Your task to perform on an android device: turn notification dots on Image 0: 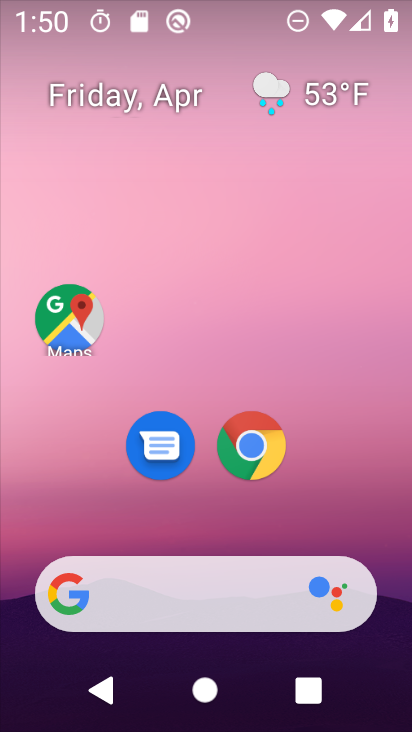
Step 0: drag from (373, 513) to (359, 95)
Your task to perform on an android device: turn notification dots on Image 1: 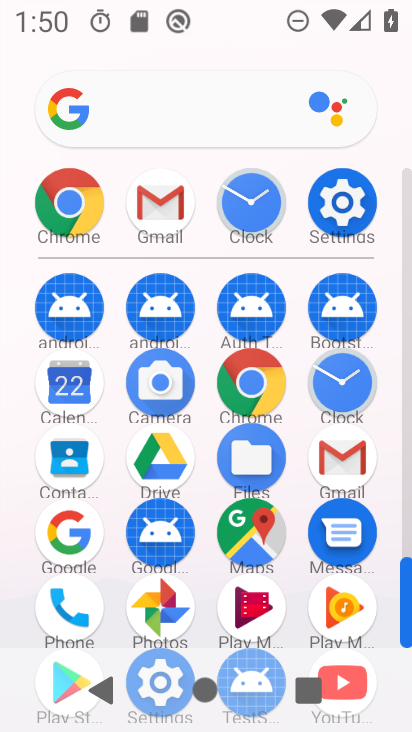
Step 1: click (325, 199)
Your task to perform on an android device: turn notification dots on Image 2: 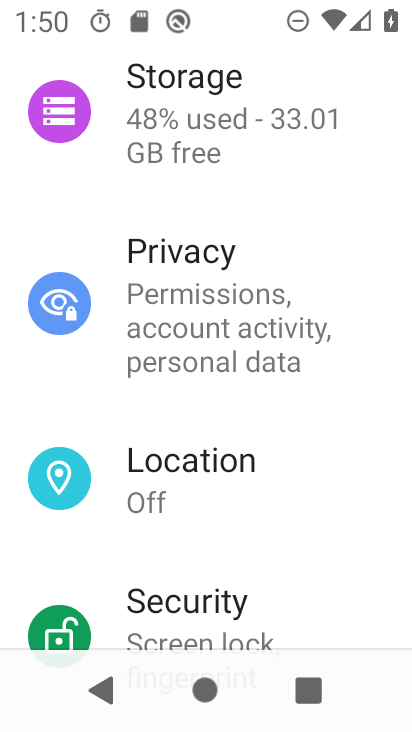
Step 2: drag from (372, 289) to (372, 425)
Your task to perform on an android device: turn notification dots on Image 3: 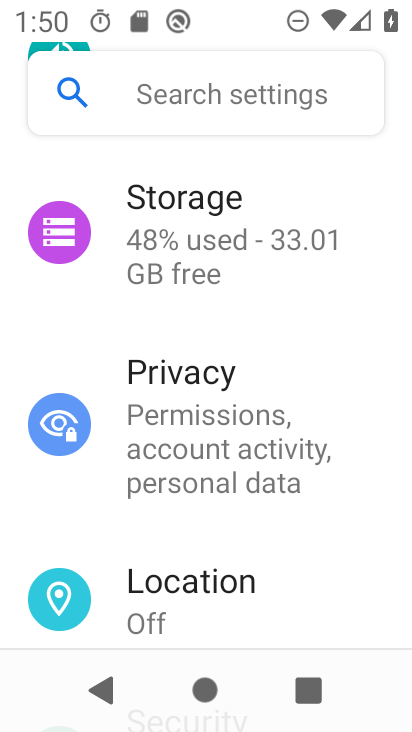
Step 3: drag from (366, 275) to (366, 439)
Your task to perform on an android device: turn notification dots on Image 4: 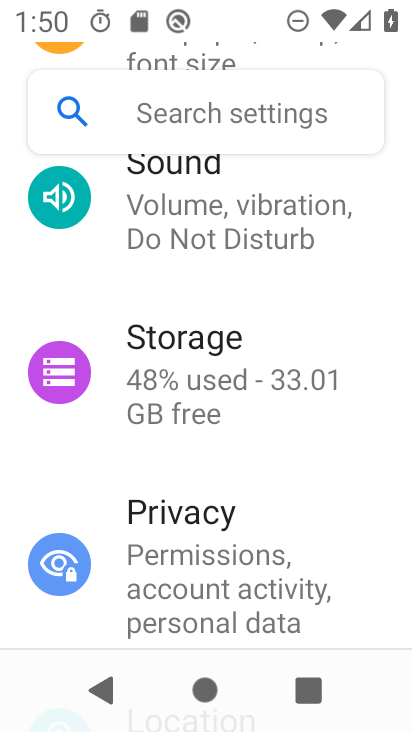
Step 4: drag from (374, 278) to (358, 426)
Your task to perform on an android device: turn notification dots on Image 5: 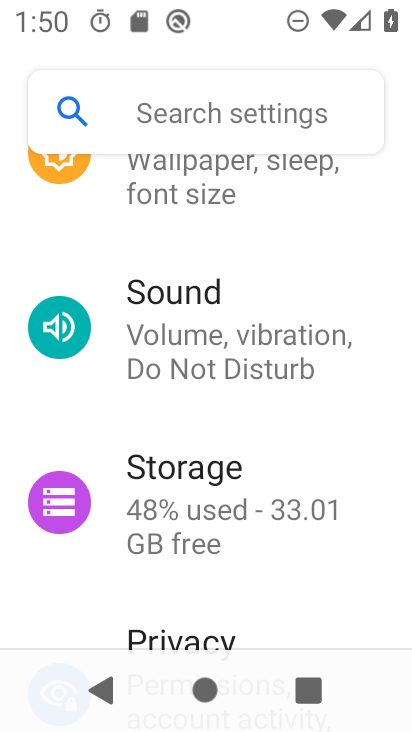
Step 5: drag from (373, 251) to (374, 416)
Your task to perform on an android device: turn notification dots on Image 6: 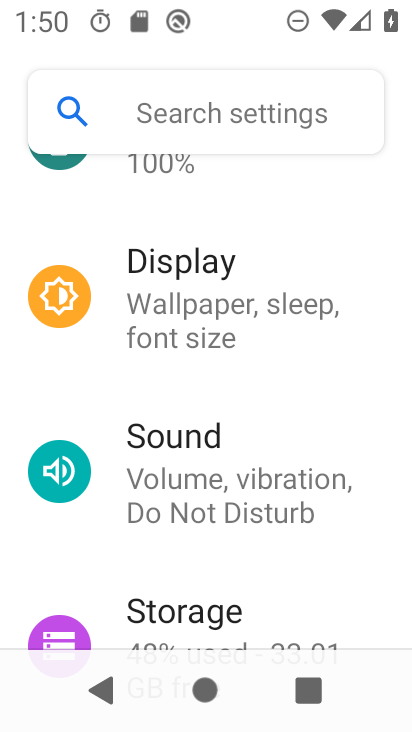
Step 6: drag from (374, 243) to (366, 409)
Your task to perform on an android device: turn notification dots on Image 7: 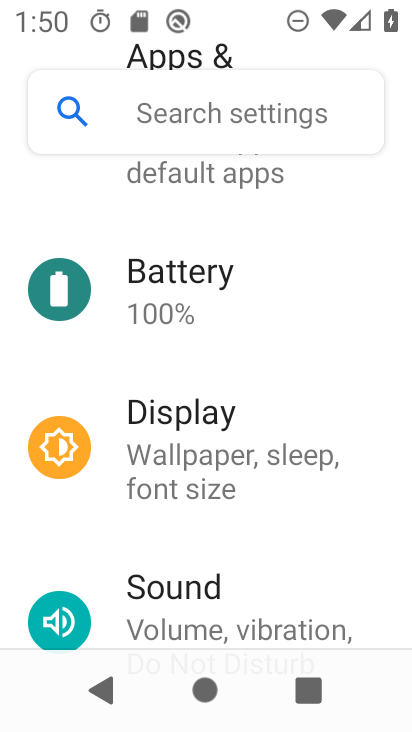
Step 7: drag from (365, 216) to (363, 386)
Your task to perform on an android device: turn notification dots on Image 8: 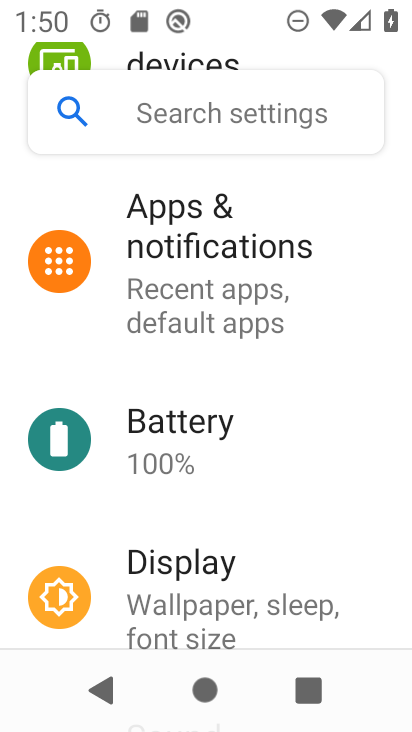
Step 8: drag from (359, 202) to (344, 445)
Your task to perform on an android device: turn notification dots on Image 9: 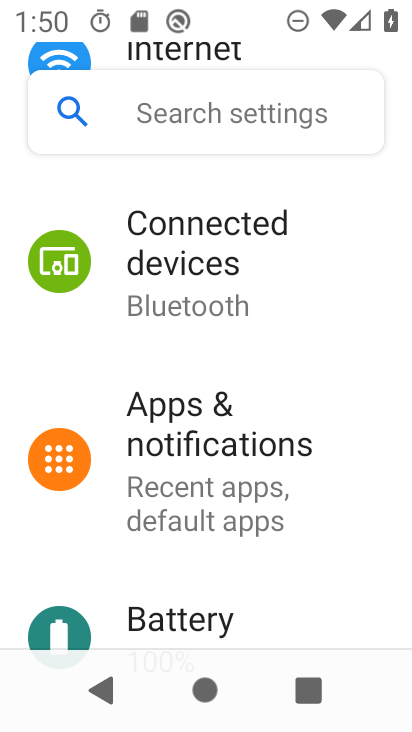
Step 9: click (299, 460)
Your task to perform on an android device: turn notification dots on Image 10: 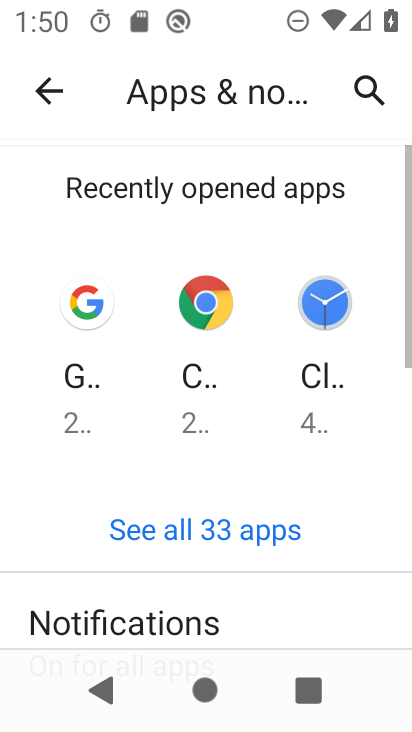
Step 10: drag from (298, 580) to (324, 333)
Your task to perform on an android device: turn notification dots on Image 11: 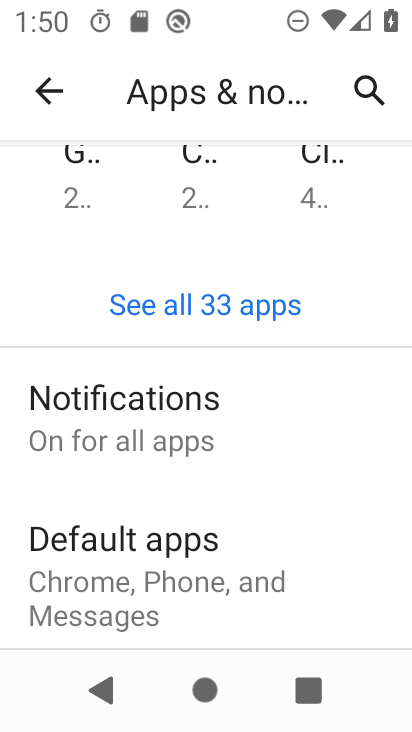
Step 11: drag from (324, 528) to (335, 418)
Your task to perform on an android device: turn notification dots on Image 12: 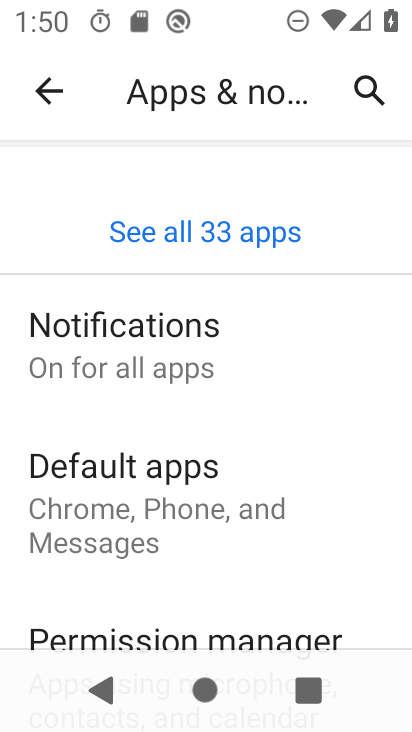
Step 12: click (147, 347)
Your task to perform on an android device: turn notification dots on Image 13: 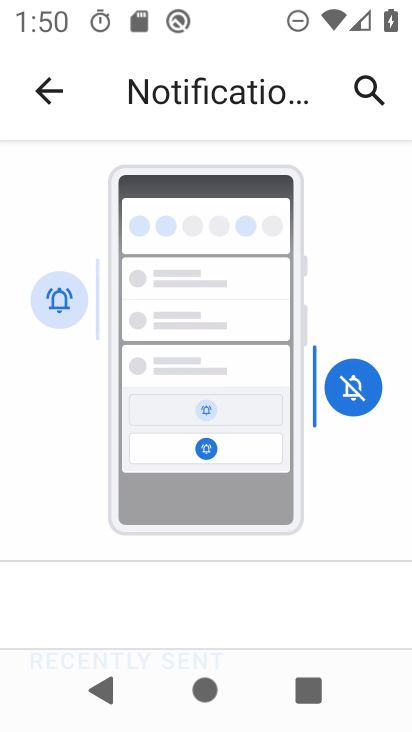
Step 13: drag from (327, 575) to (334, 394)
Your task to perform on an android device: turn notification dots on Image 14: 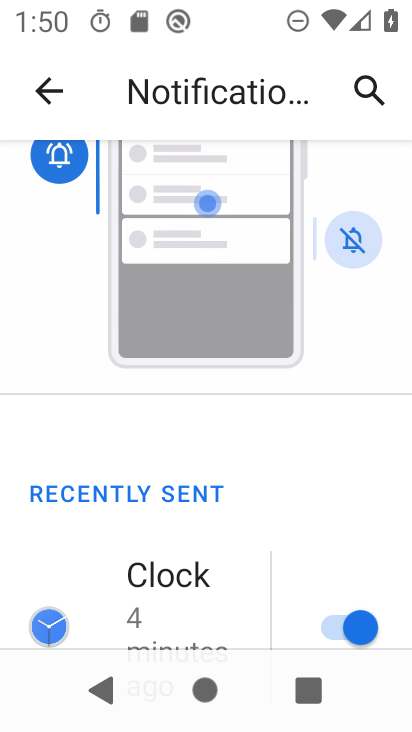
Step 14: drag from (242, 590) to (254, 407)
Your task to perform on an android device: turn notification dots on Image 15: 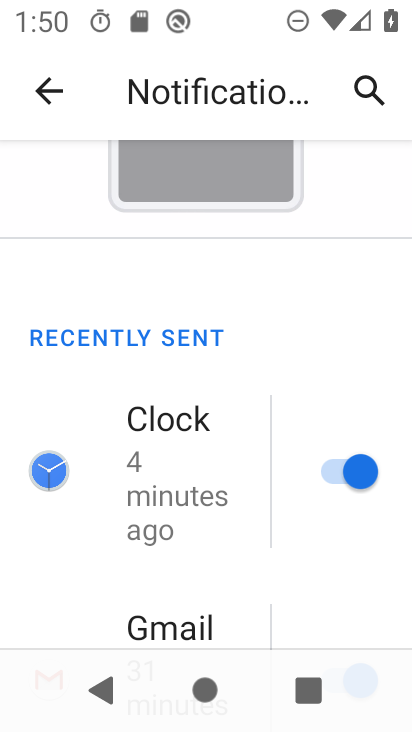
Step 15: drag from (238, 595) to (241, 404)
Your task to perform on an android device: turn notification dots on Image 16: 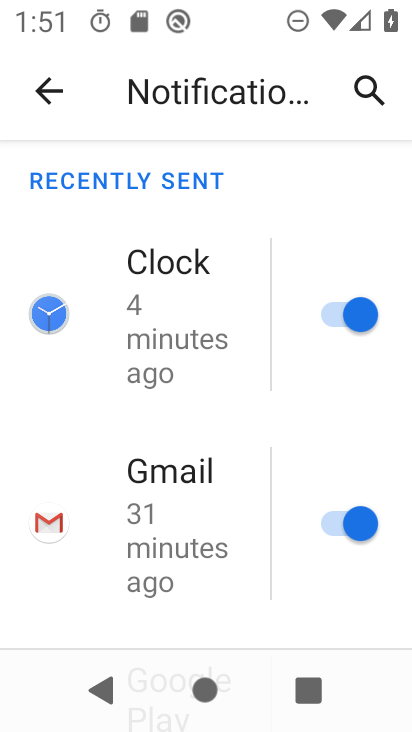
Step 16: drag from (244, 586) to (252, 340)
Your task to perform on an android device: turn notification dots on Image 17: 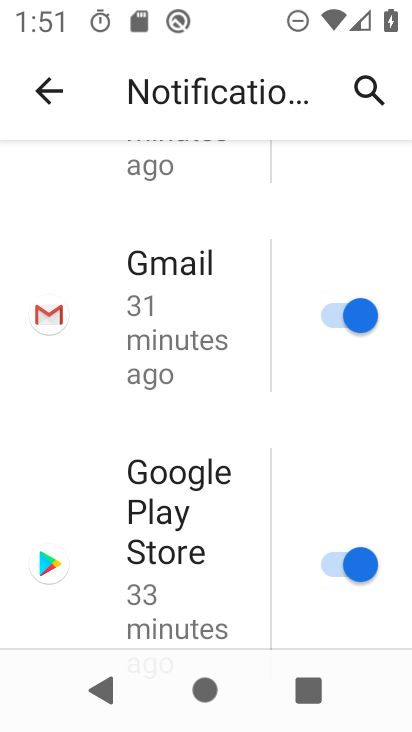
Step 17: drag from (247, 575) to (236, 308)
Your task to perform on an android device: turn notification dots on Image 18: 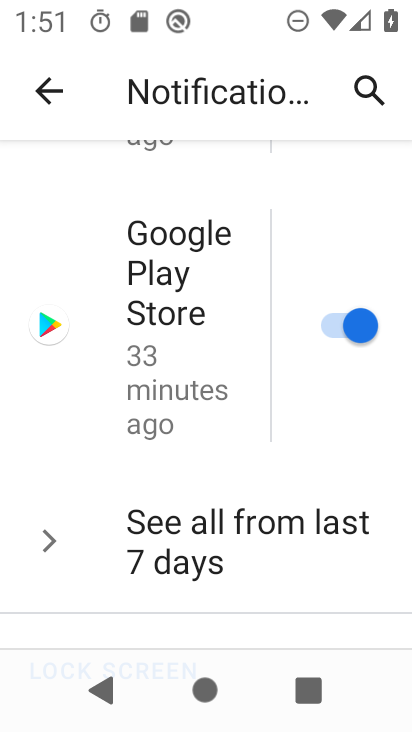
Step 18: drag from (240, 592) to (248, 345)
Your task to perform on an android device: turn notification dots on Image 19: 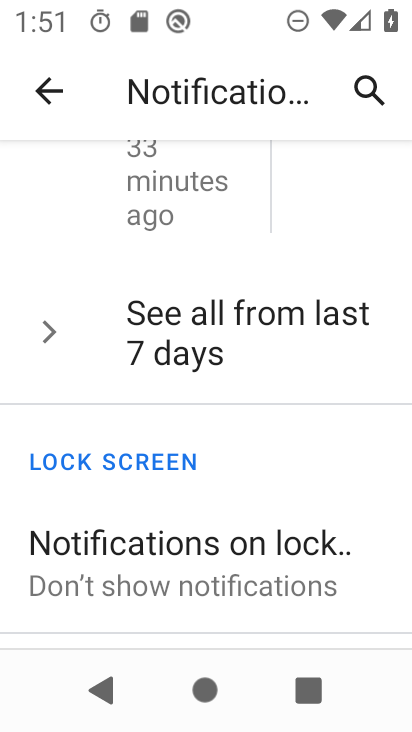
Step 19: drag from (352, 590) to (355, 368)
Your task to perform on an android device: turn notification dots on Image 20: 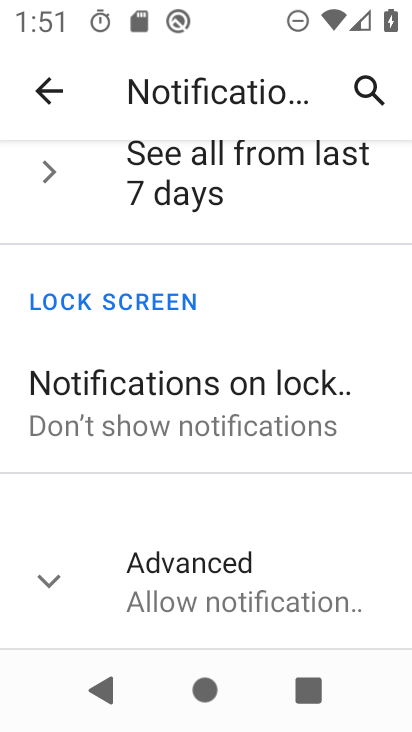
Step 20: click (267, 598)
Your task to perform on an android device: turn notification dots on Image 21: 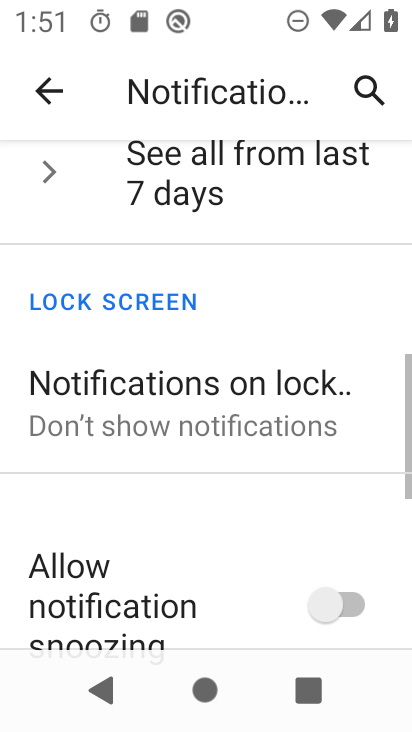
Step 21: drag from (269, 588) to (276, 437)
Your task to perform on an android device: turn notification dots on Image 22: 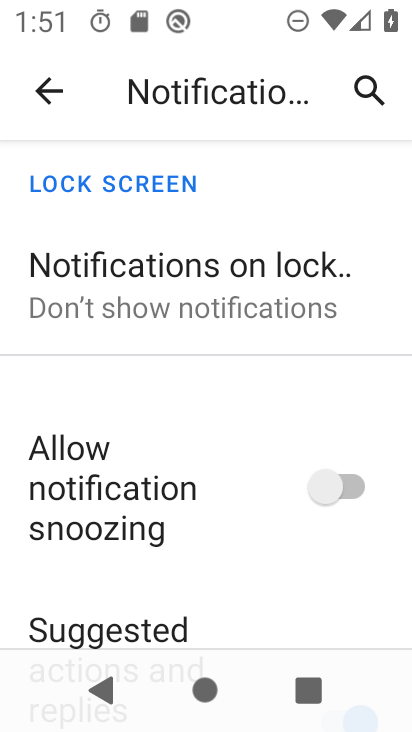
Step 22: drag from (249, 590) to (250, 484)
Your task to perform on an android device: turn notification dots on Image 23: 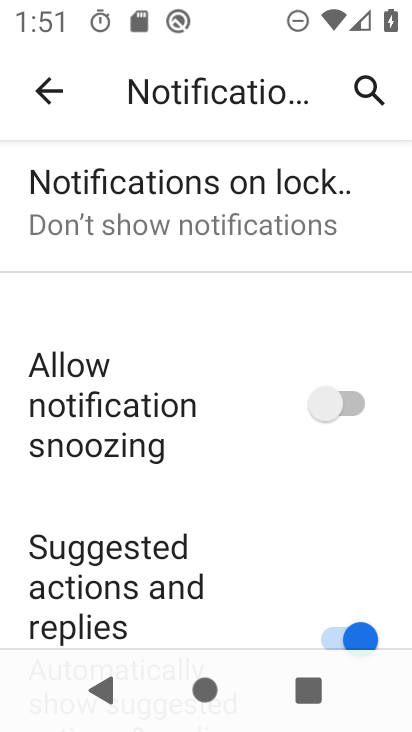
Step 23: drag from (268, 561) to (264, 449)
Your task to perform on an android device: turn notification dots on Image 24: 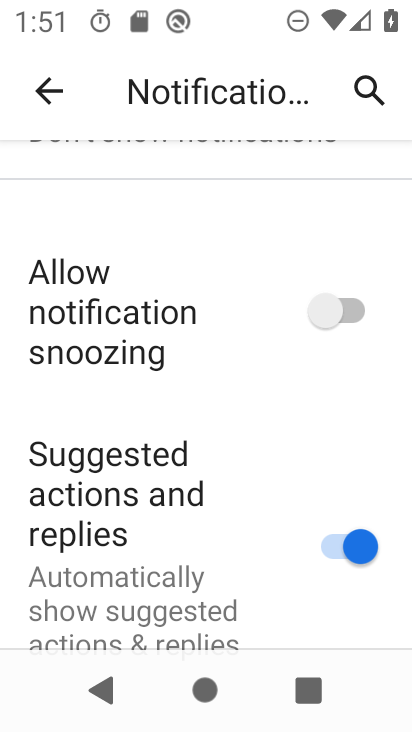
Step 24: drag from (260, 577) to (261, 412)
Your task to perform on an android device: turn notification dots on Image 25: 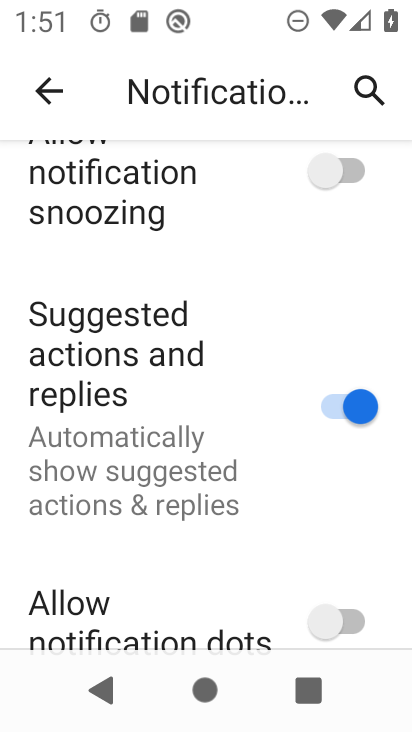
Step 25: drag from (260, 591) to (266, 389)
Your task to perform on an android device: turn notification dots on Image 26: 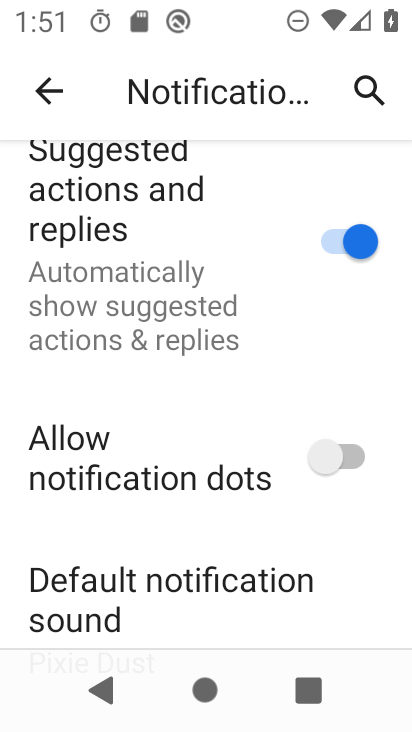
Step 26: click (336, 460)
Your task to perform on an android device: turn notification dots on Image 27: 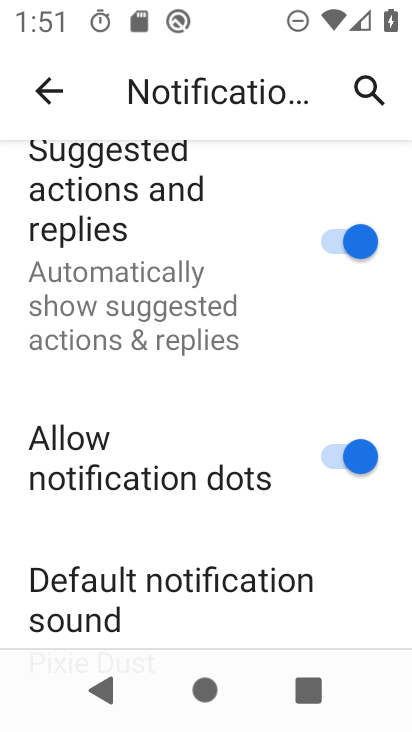
Step 27: task complete